Your task to perform on an android device: turn on javascript in the chrome app Image 0: 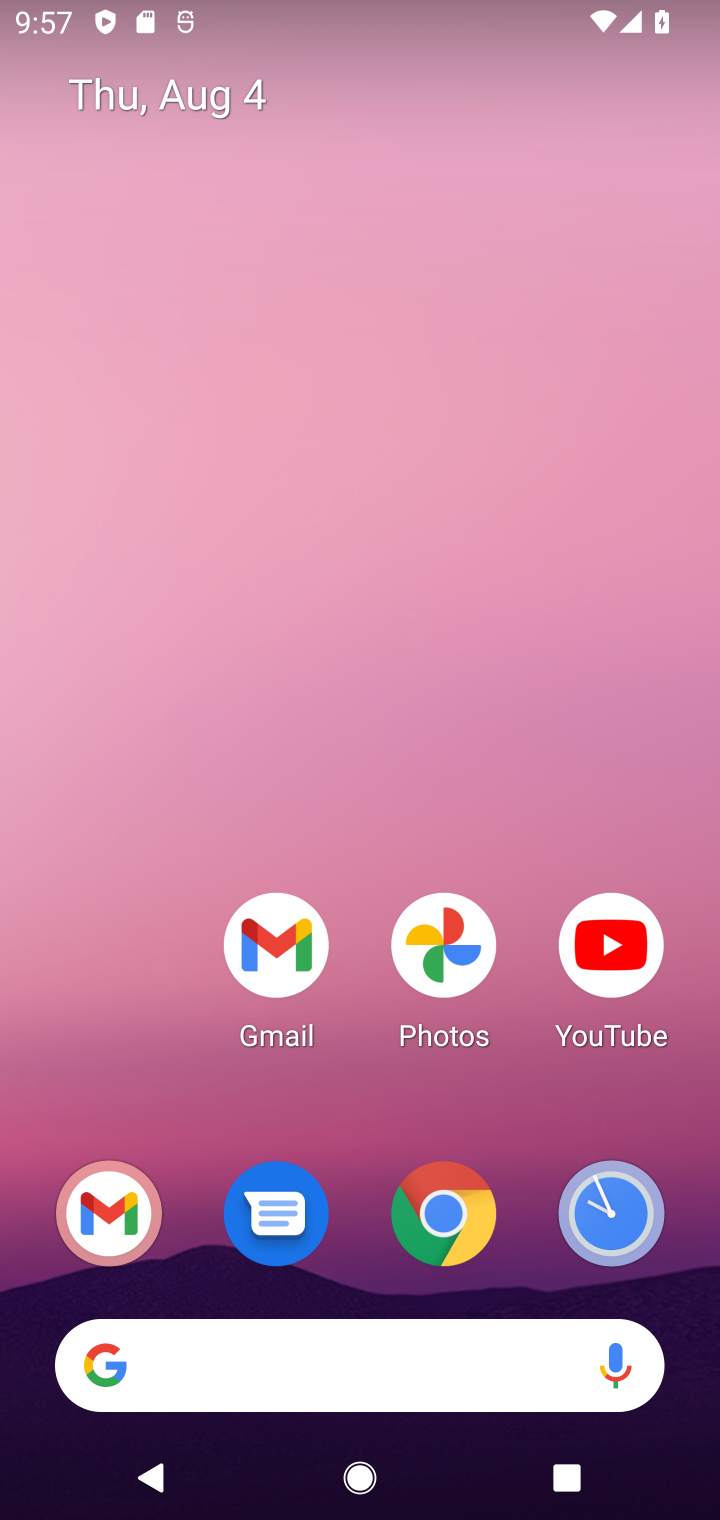
Step 0: click (449, 1225)
Your task to perform on an android device: turn on javascript in the chrome app Image 1: 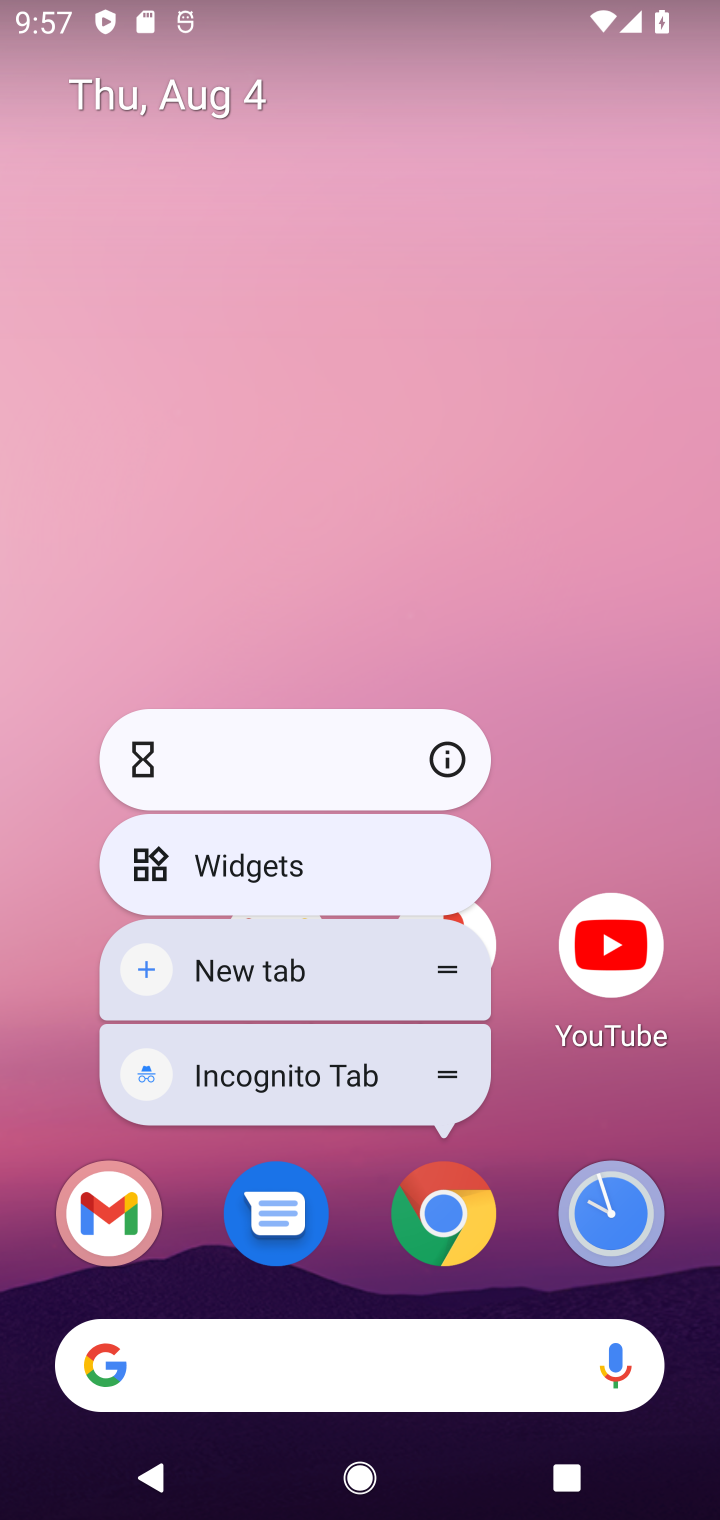
Step 1: click (440, 1202)
Your task to perform on an android device: turn on javascript in the chrome app Image 2: 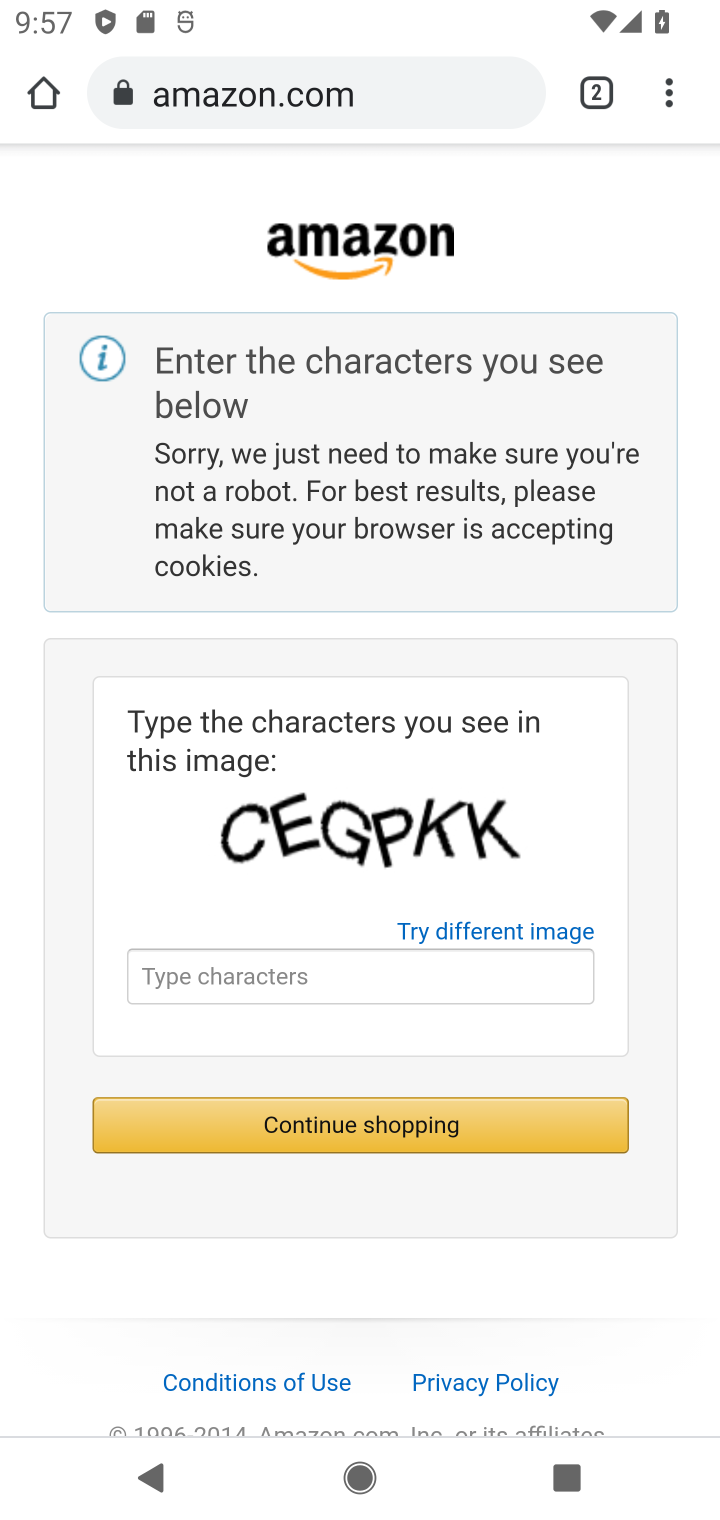
Step 2: click (652, 71)
Your task to perform on an android device: turn on javascript in the chrome app Image 3: 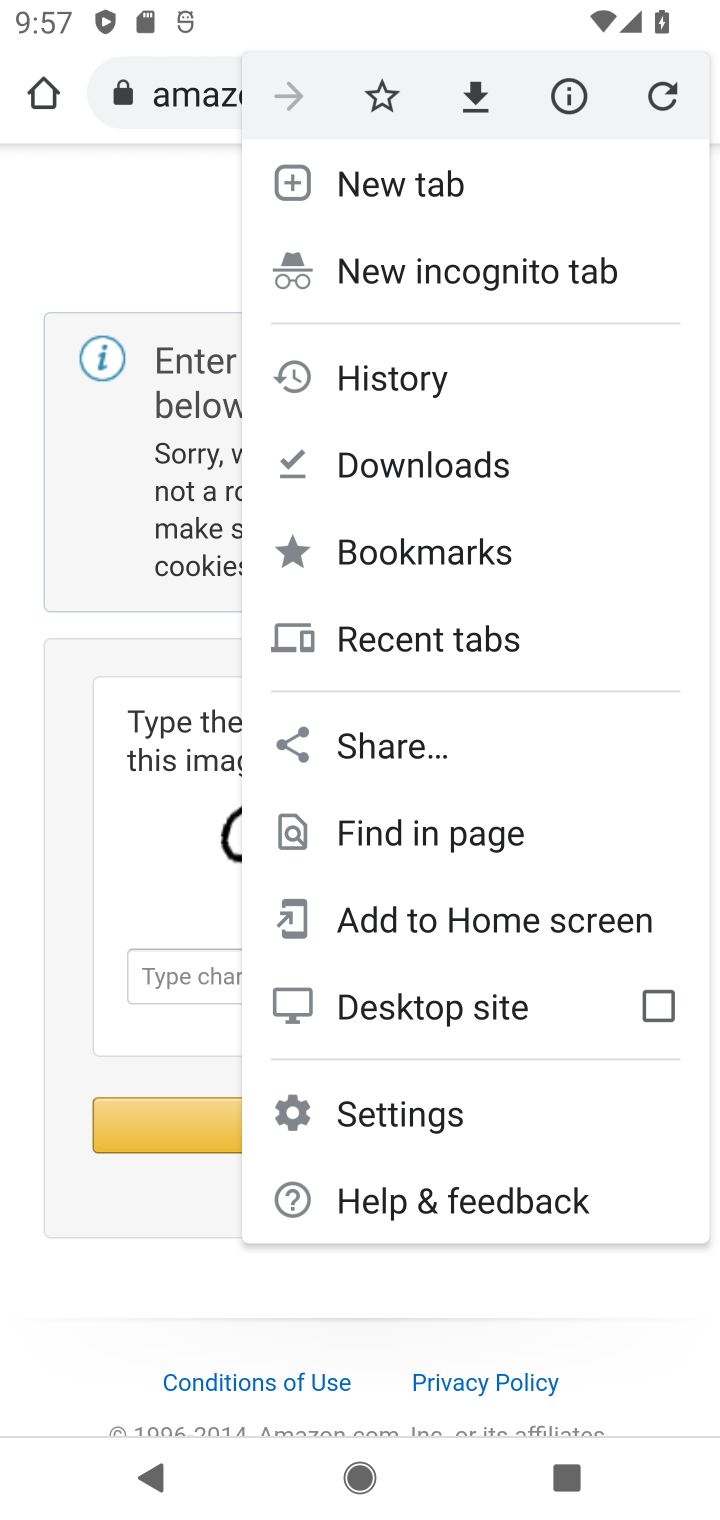
Step 3: click (432, 1116)
Your task to perform on an android device: turn on javascript in the chrome app Image 4: 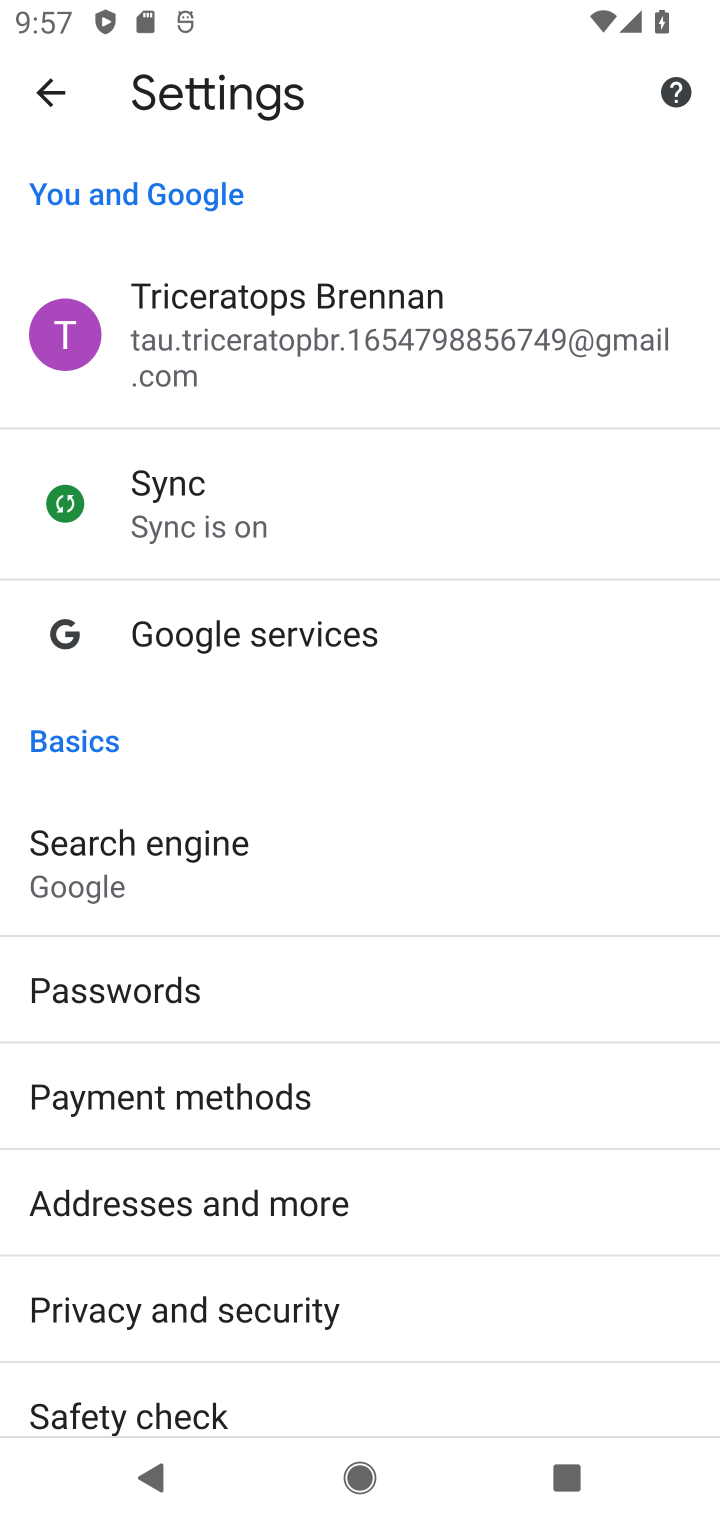
Step 4: drag from (216, 1164) to (325, 408)
Your task to perform on an android device: turn on javascript in the chrome app Image 5: 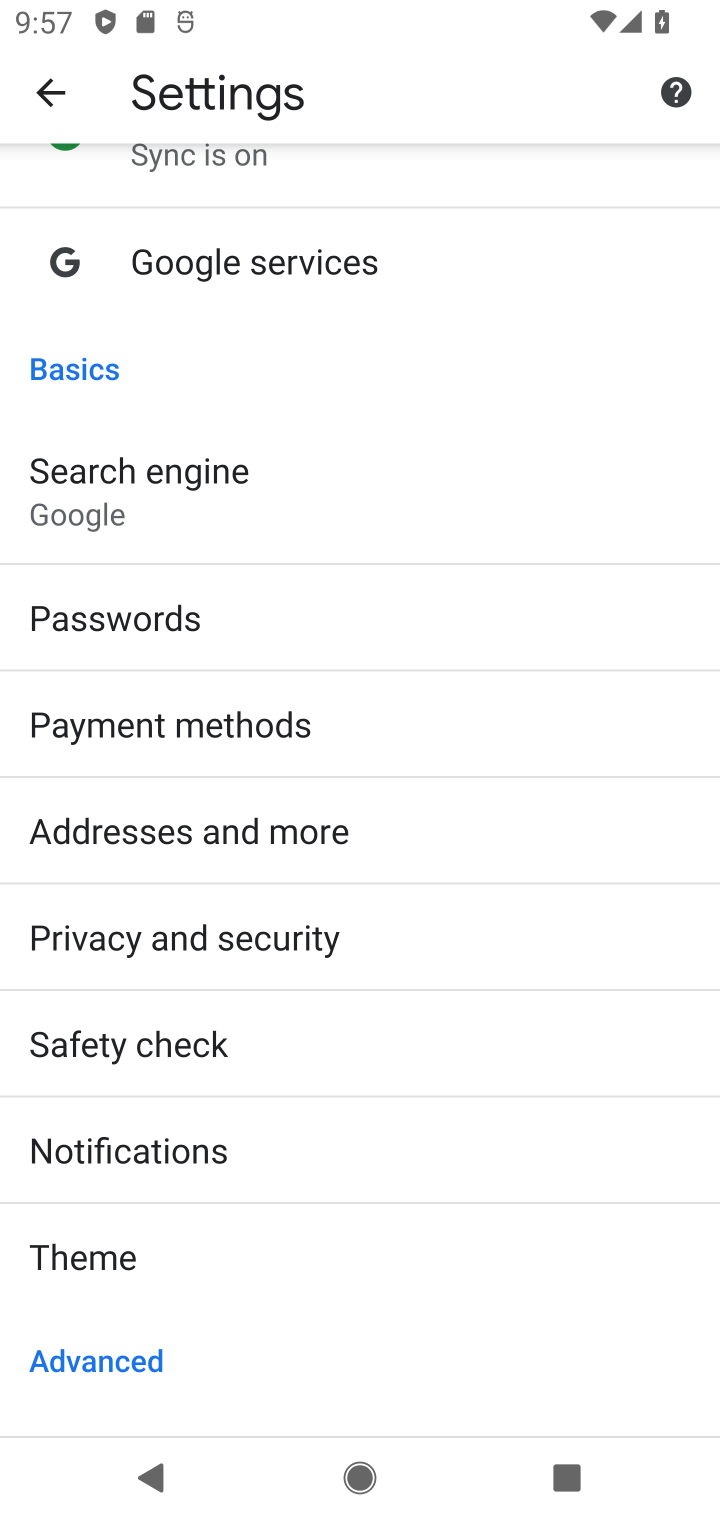
Step 5: drag from (194, 1160) to (298, 158)
Your task to perform on an android device: turn on javascript in the chrome app Image 6: 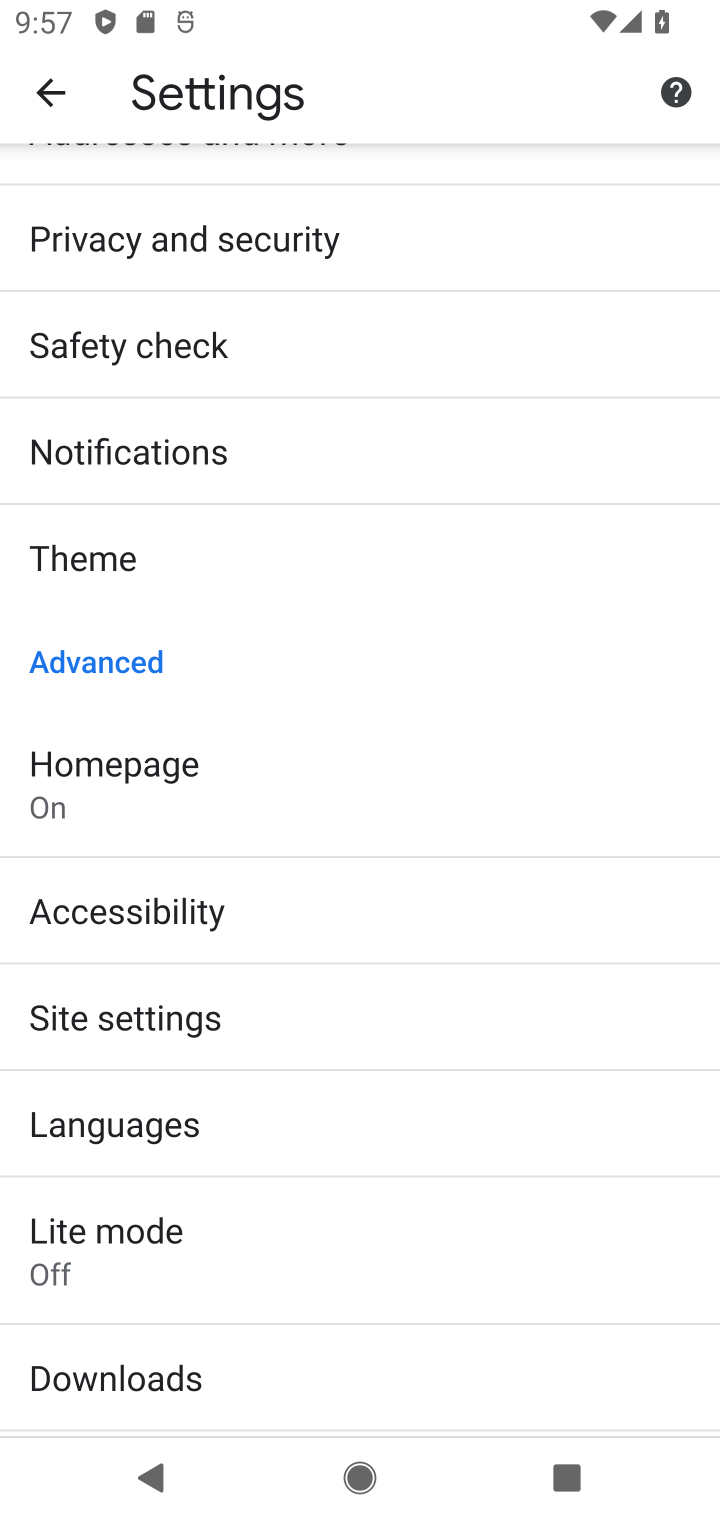
Step 6: click (137, 1022)
Your task to perform on an android device: turn on javascript in the chrome app Image 7: 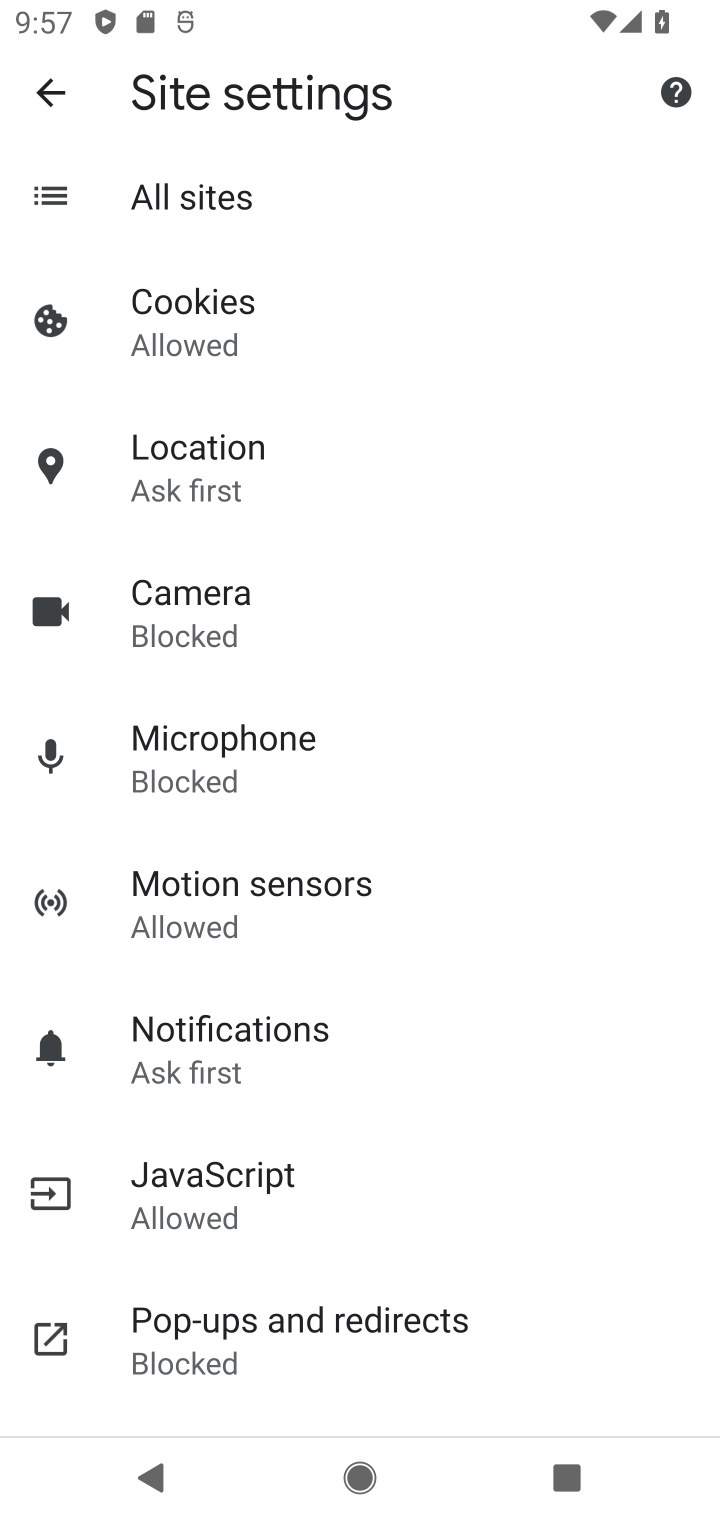
Step 7: click (260, 1202)
Your task to perform on an android device: turn on javascript in the chrome app Image 8: 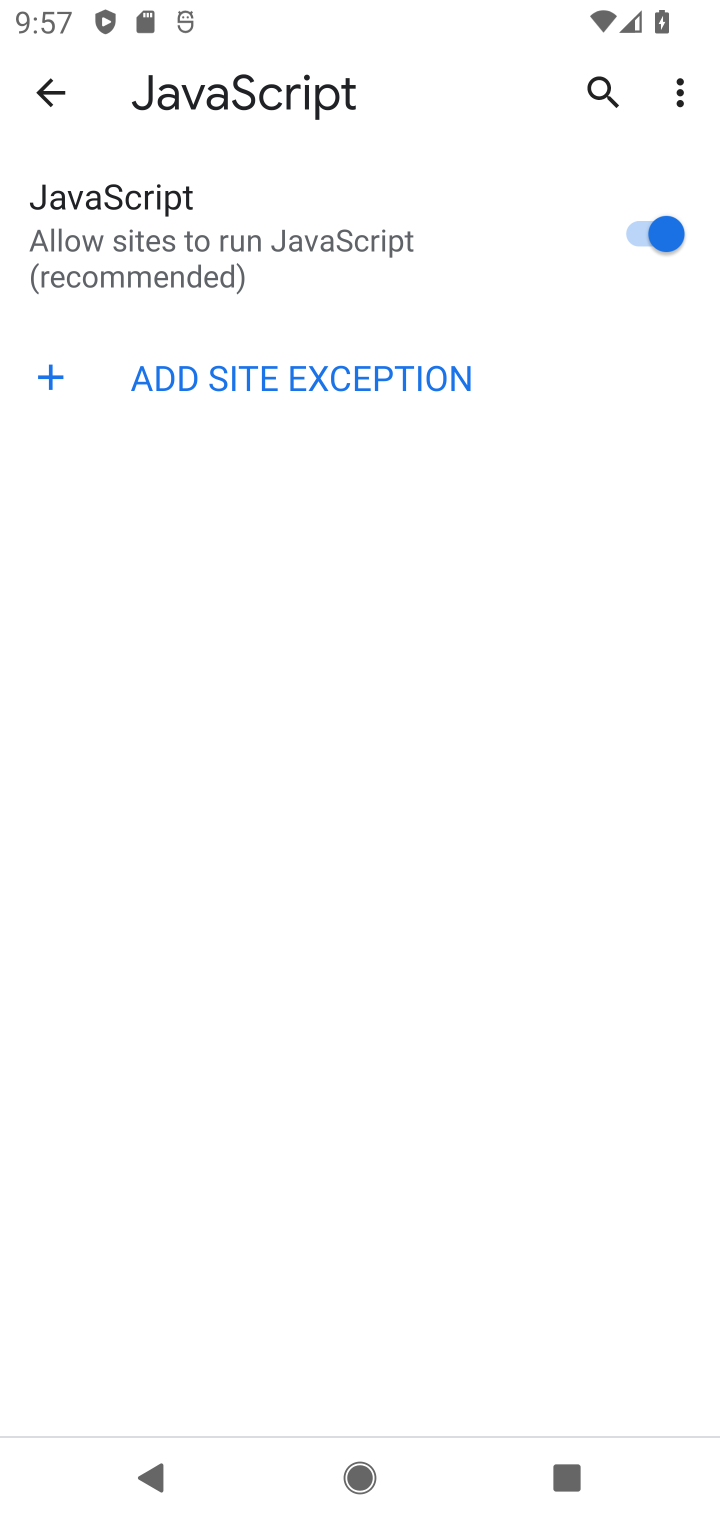
Step 8: task complete